Your task to perform on an android device: delete location history Image 0: 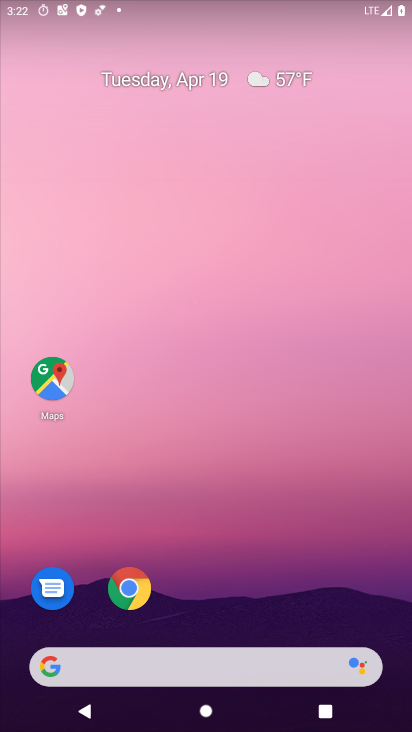
Step 0: drag from (183, 600) to (233, 215)
Your task to perform on an android device: delete location history Image 1: 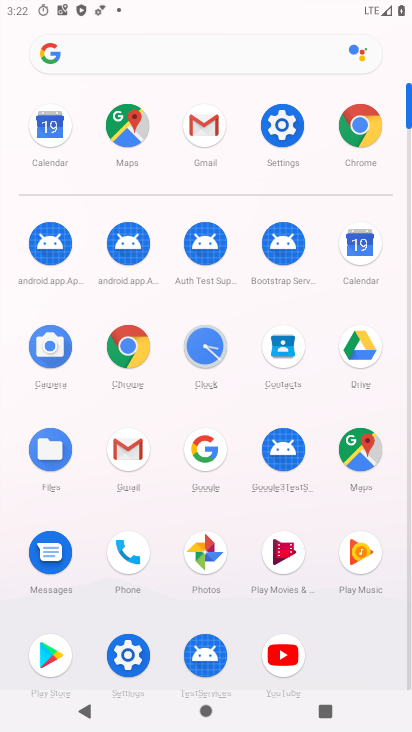
Step 1: click (120, 646)
Your task to perform on an android device: delete location history Image 2: 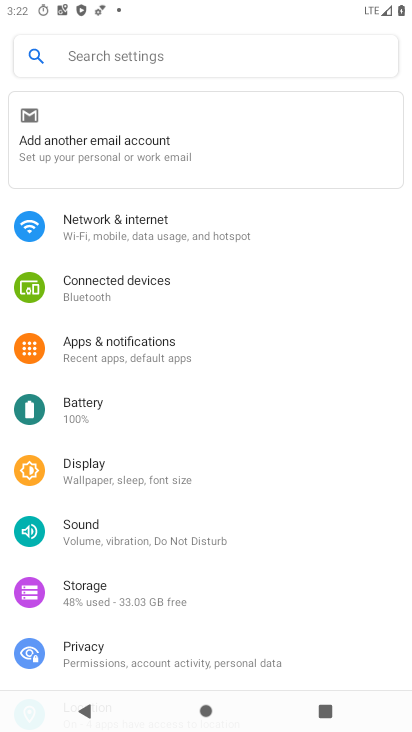
Step 2: drag from (131, 632) to (218, 233)
Your task to perform on an android device: delete location history Image 3: 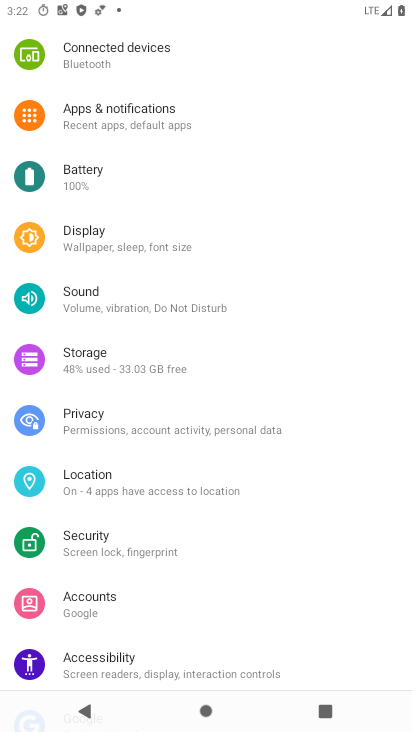
Step 3: click (109, 479)
Your task to perform on an android device: delete location history Image 4: 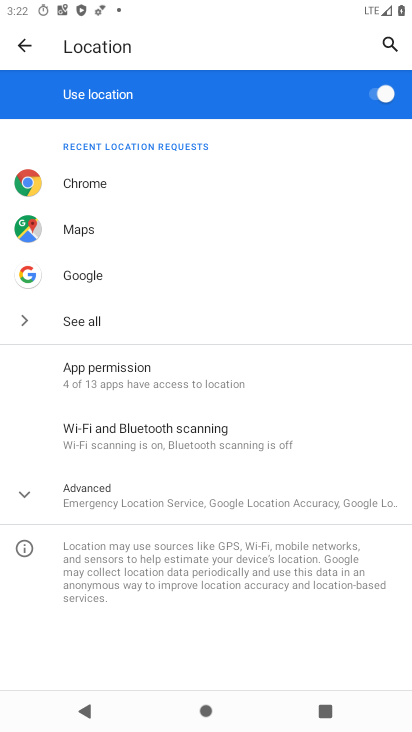
Step 4: click (102, 482)
Your task to perform on an android device: delete location history Image 5: 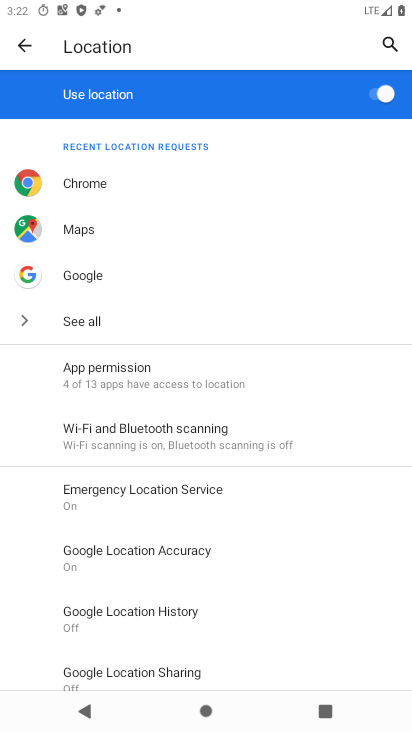
Step 5: click (193, 627)
Your task to perform on an android device: delete location history Image 6: 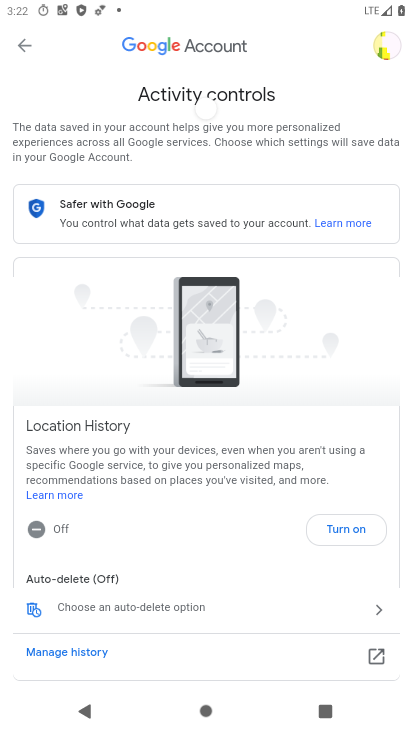
Step 6: drag from (232, 529) to (307, 383)
Your task to perform on an android device: delete location history Image 7: 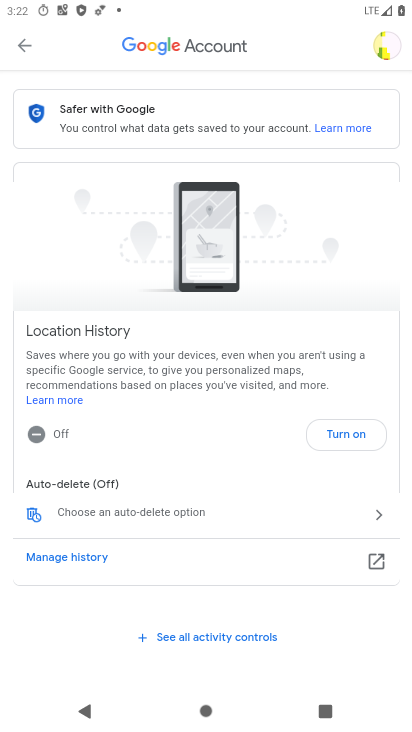
Step 7: click (348, 430)
Your task to perform on an android device: delete location history Image 8: 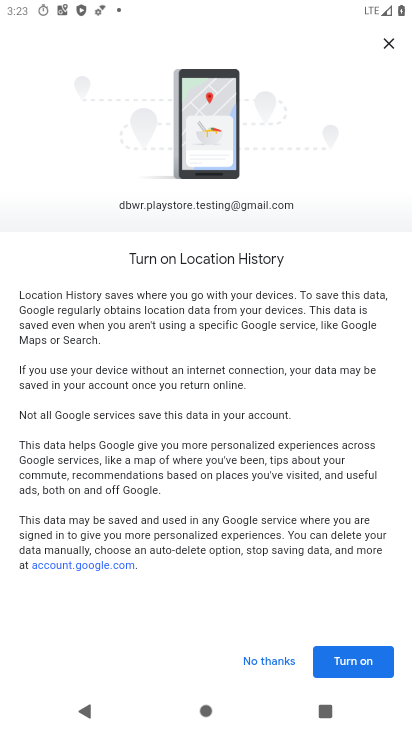
Step 8: click (353, 659)
Your task to perform on an android device: delete location history Image 9: 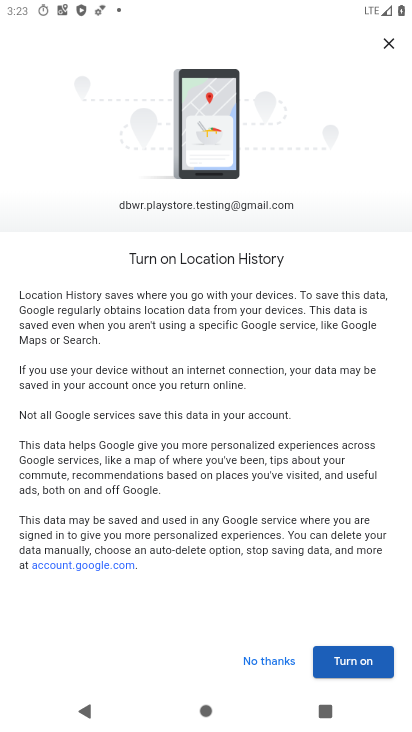
Step 9: click (361, 656)
Your task to perform on an android device: delete location history Image 10: 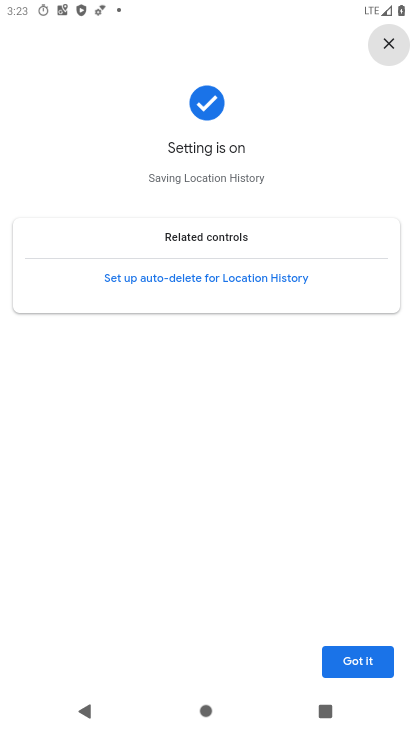
Step 10: click (344, 654)
Your task to perform on an android device: delete location history Image 11: 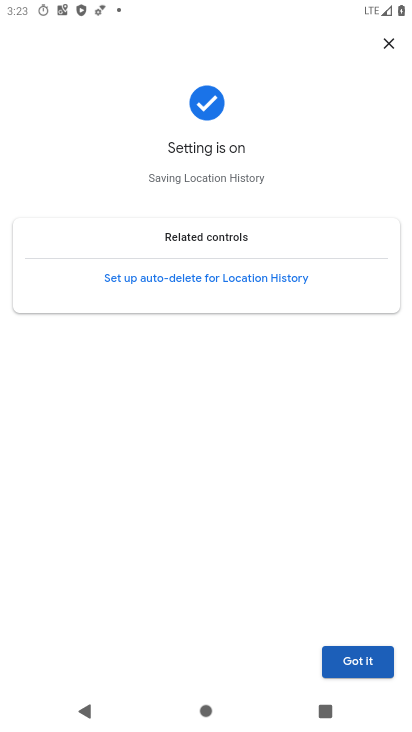
Step 11: click (356, 662)
Your task to perform on an android device: delete location history Image 12: 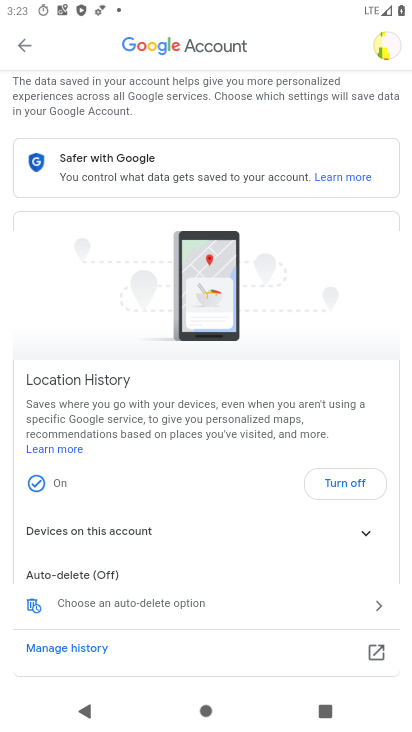
Step 12: task complete